Your task to perform on an android device: toggle translation in the chrome app Image 0: 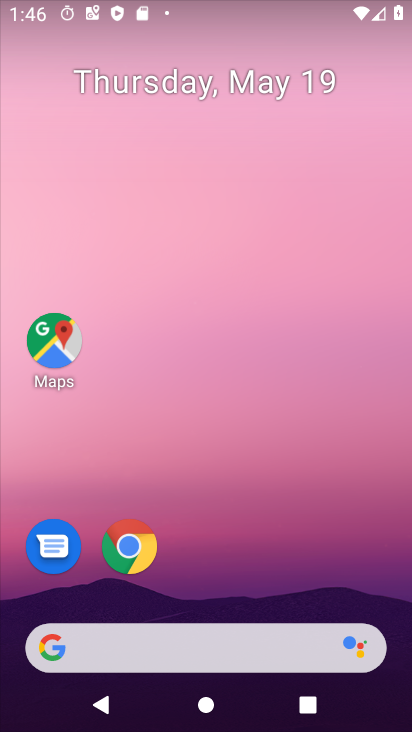
Step 0: click (131, 545)
Your task to perform on an android device: toggle translation in the chrome app Image 1: 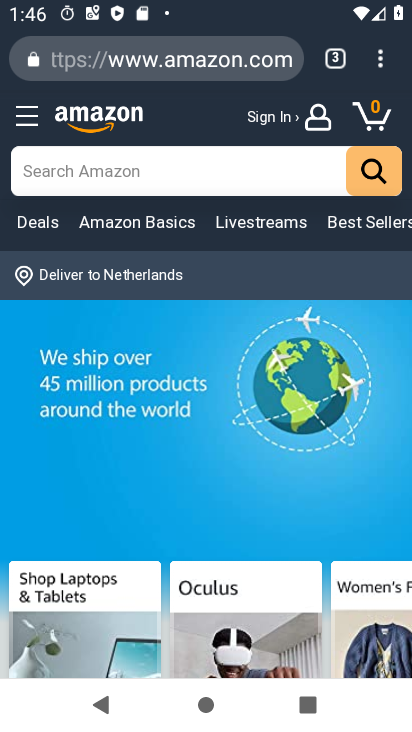
Step 1: click (374, 53)
Your task to perform on an android device: toggle translation in the chrome app Image 2: 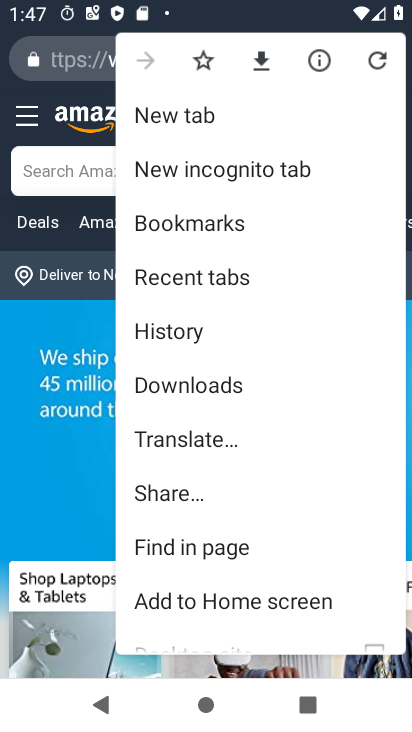
Step 2: drag from (161, 536) to (246, 136)
Your task to perform on an android device: toggle translation in the chrome app Image 3: 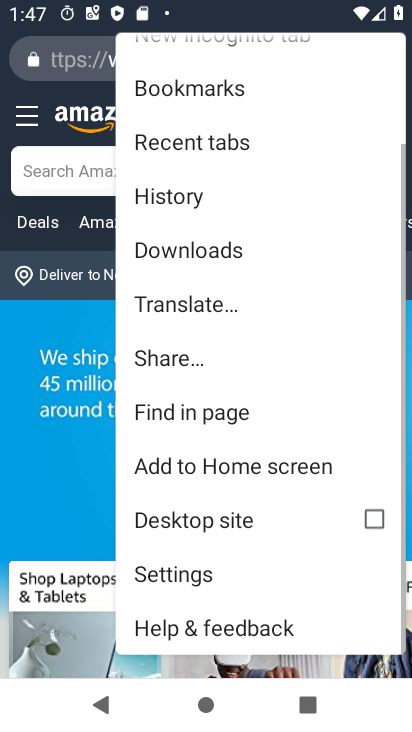
Step 3: click (170, 571)
Your task to perform on an android device: toggle translation in the chrome app Image 4: 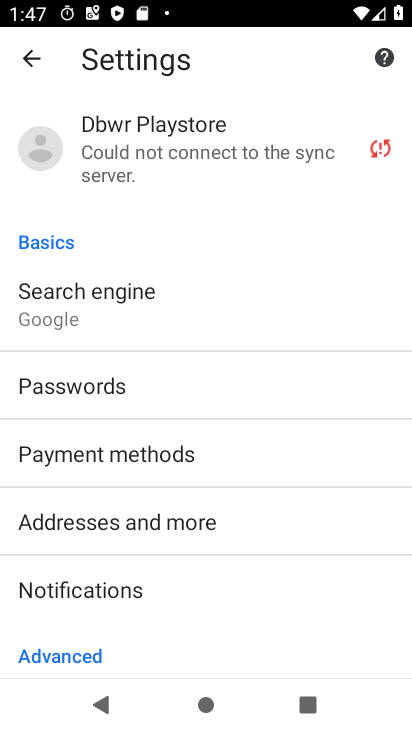
Step 4: drag from (113, 632) to (207, 239)
Your task to perform on an android device: toggle translation in the chrome app Image 5: 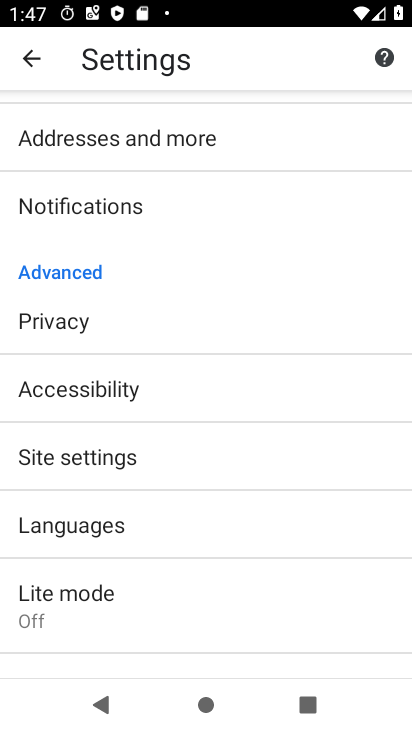
Step 5: click (85, 527)
Your task to perform on an android device: toggle translation in the chrome app Image 6: 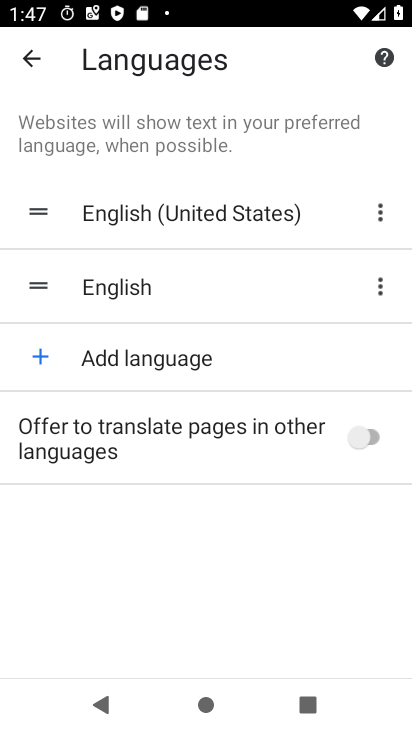
Step 6: click (370, 435)
Your task to perform on an android device: toggle translation in the chrome app Image 7: 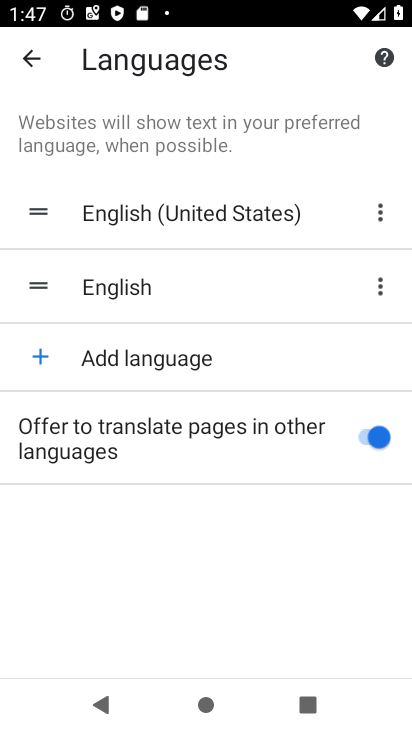
Step 7: click (370, 435)
Your task to perform on an android device: toggle translation in the chrome app Image 8: 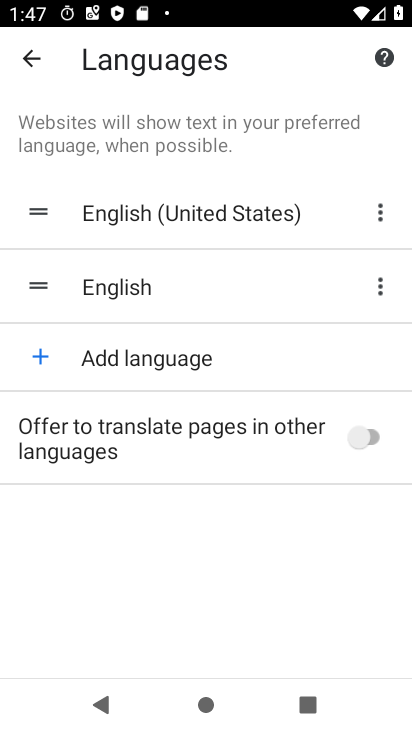
Step 8: task complete